Your task to perform on an android device: Open the stopwatch Image 0: 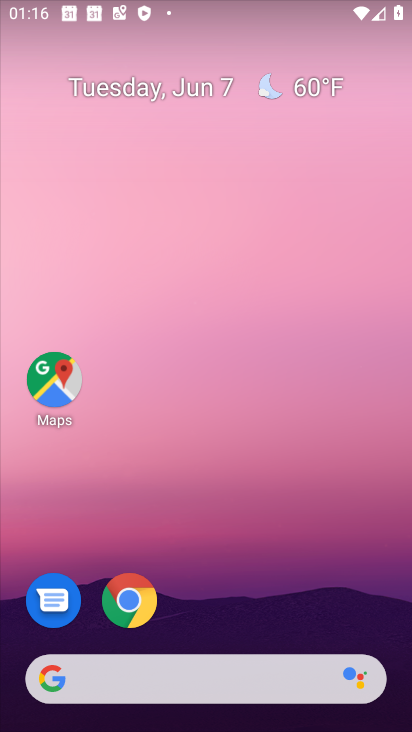
Step 0: drag from (193, 724) to (163, 137)
Your task to perform on an android device: Open the stopwatch Image 1: 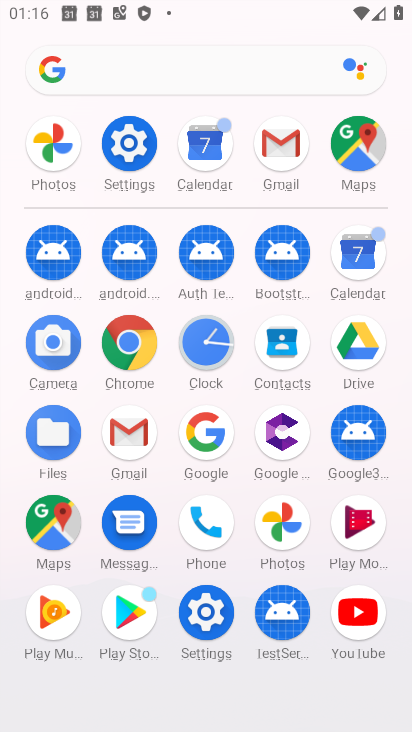
Step 1: click (202, 353)
Your task to perform on an android device: Open the stopwatch Image 2: 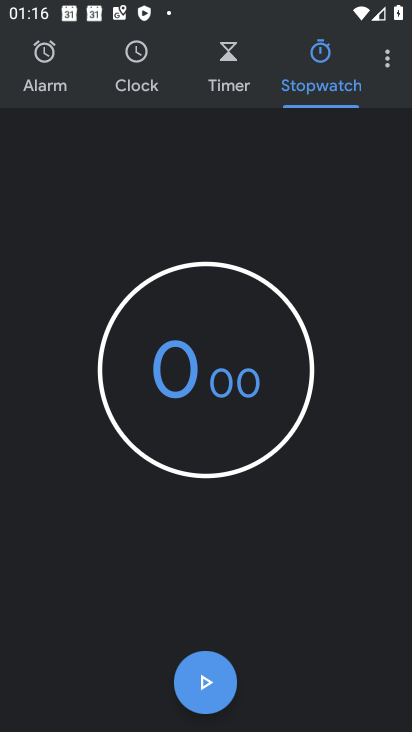
Step 2: task complete